Your task to perform on an android device: Open the web browser Image 0: 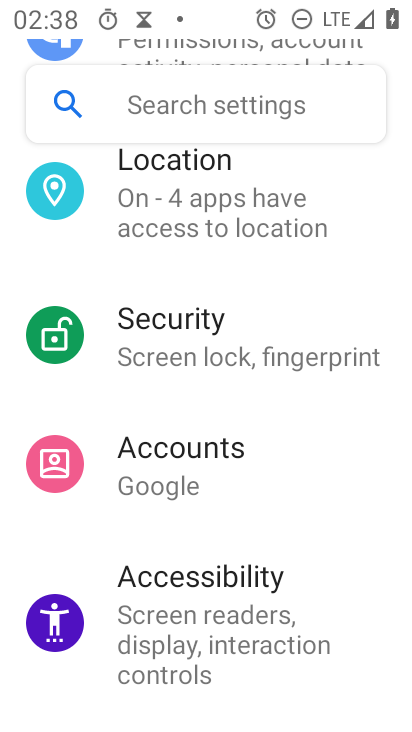
Step 0: press home button
Your task to perform on an android device: Open the web browser Image 1: 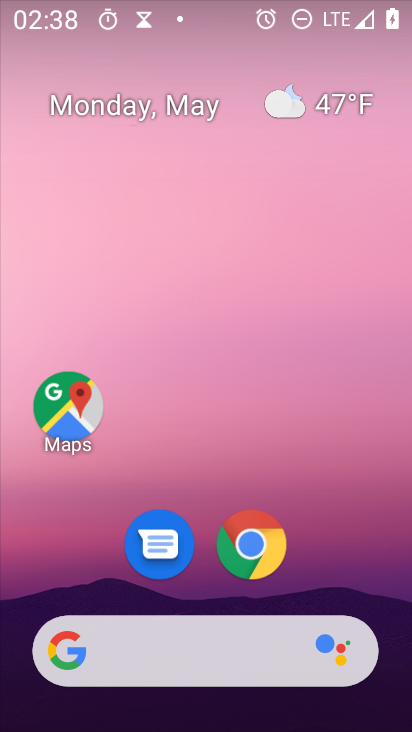
Step 1: drag from (262, 632) to (292, 129)
Your task to perform on an android device: Open the web browser Image 2: 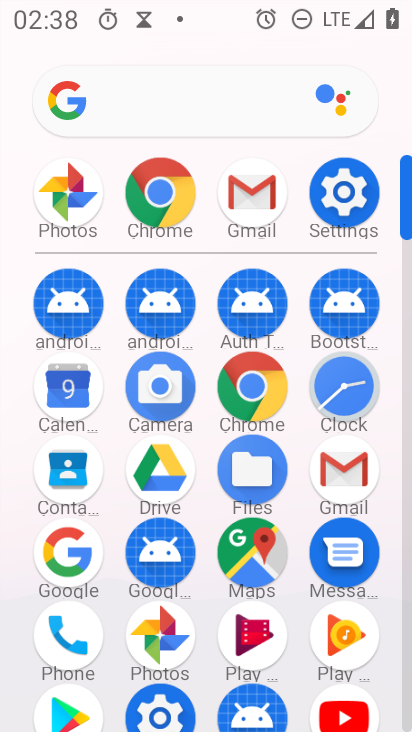
Step 2: click (253, 392)
Your task to perform on an android device: Open the web browser Image 3: 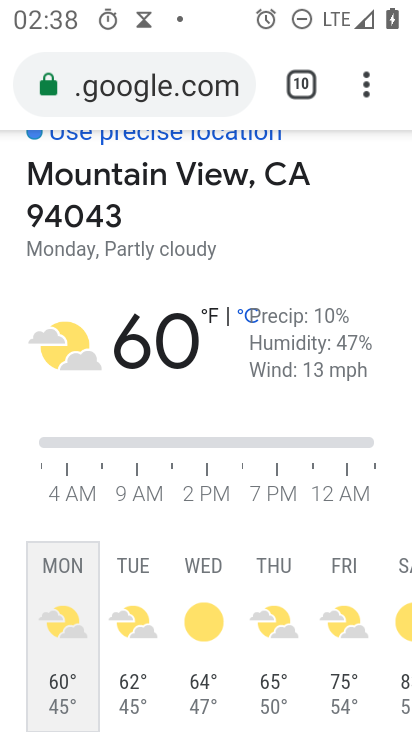
Step 3: task complete